Your task to perform on an android device: change alarm snooze length Image 0: 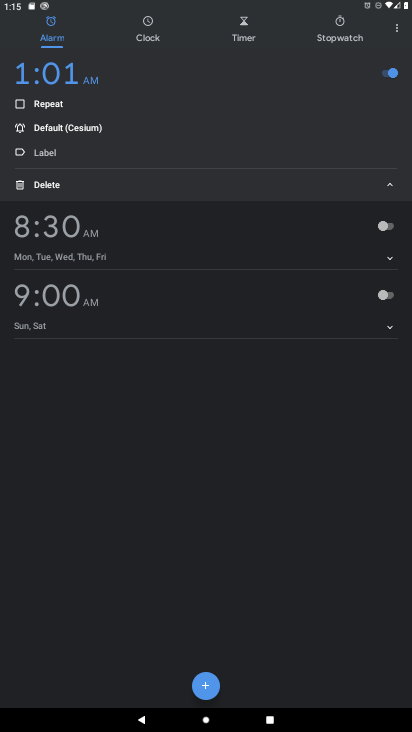
Step 0: press home button
Your task to perform on an android device: change alarm snooze length Image 1: 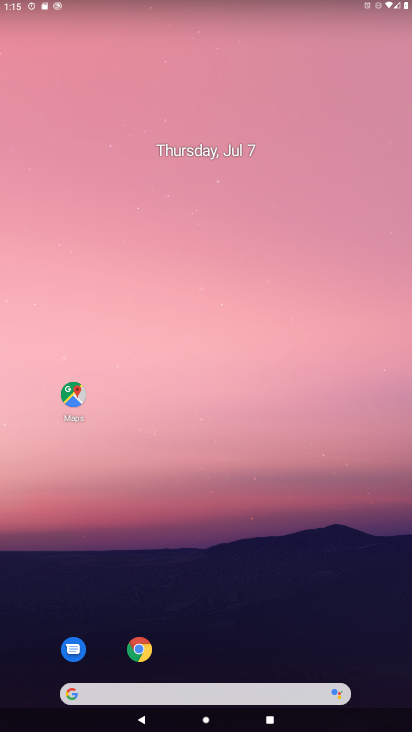
Step 1: drag from (194, 659) to (216, 155)
Your task to perform on an android device: change alarm snooze length Image 2: 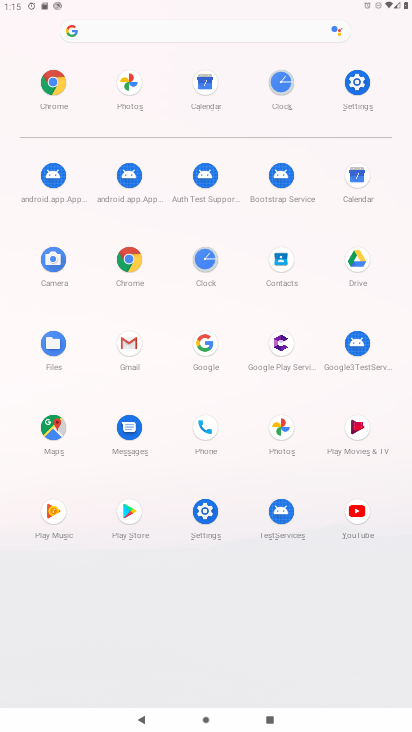
Step 2: click (208, 250)
Your task to perform on an android device: change alarm snooze length Image 3: 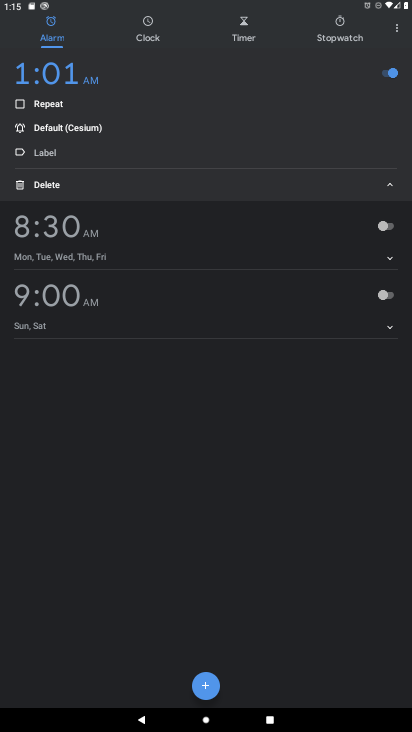
Step 3: click (400, 30)
Your task to perform on an android device: change alarm snooze length Image 4: 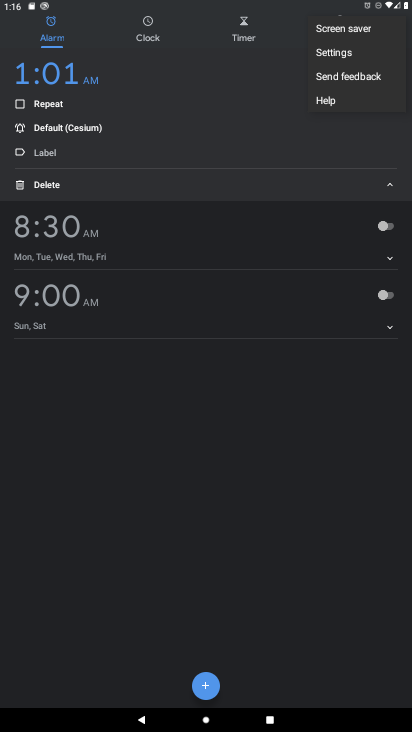
Step 4: click (338, 62)
Your task to perform on an android device: change alarm snooze length Image 5: 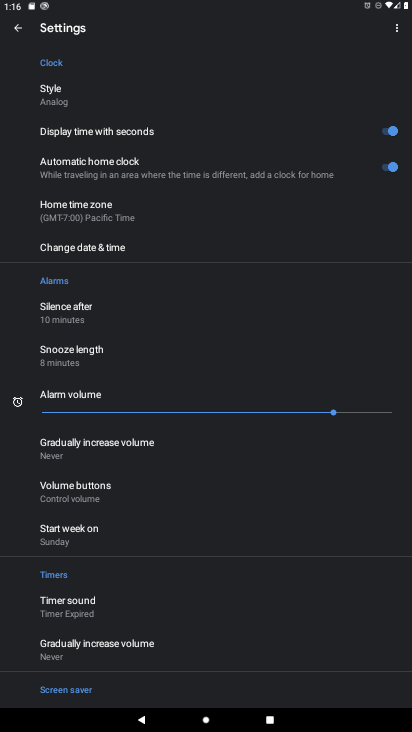
Step 5: click (51, 372)
Your task to perform on an android device: change alarm snooze length Image 6: 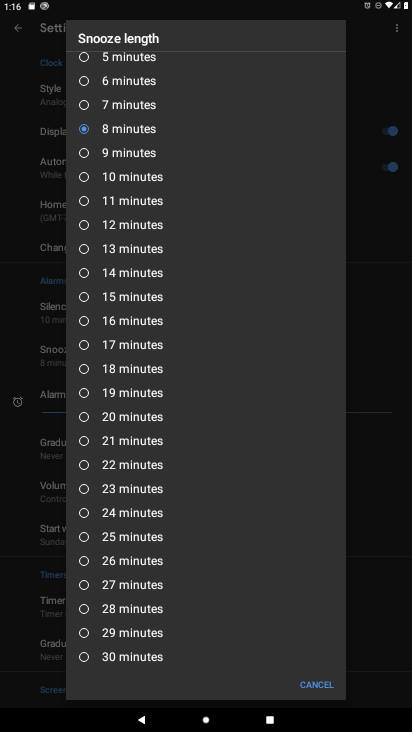
Step 6: click (120, 152)
Your task to perform on an android device: change alarm snooze length Image 7: 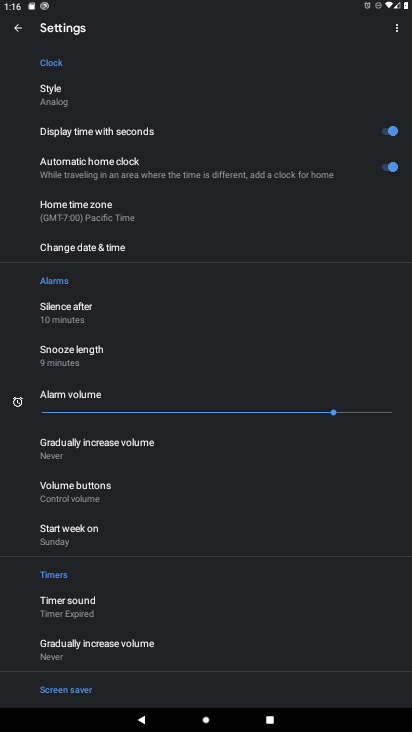
Step 7: task complete